Your task to perform on an android device: Open Android settings Image 0: 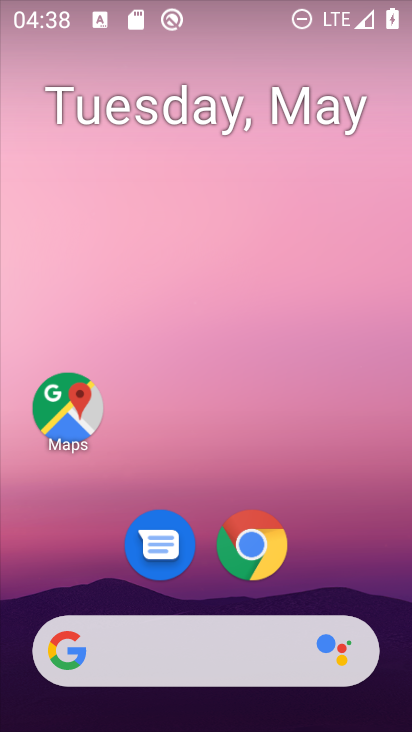
Step 0: drag from (391, 619) to (306, 101)
Your task to perform on an android device: Open Android settings Image 1: 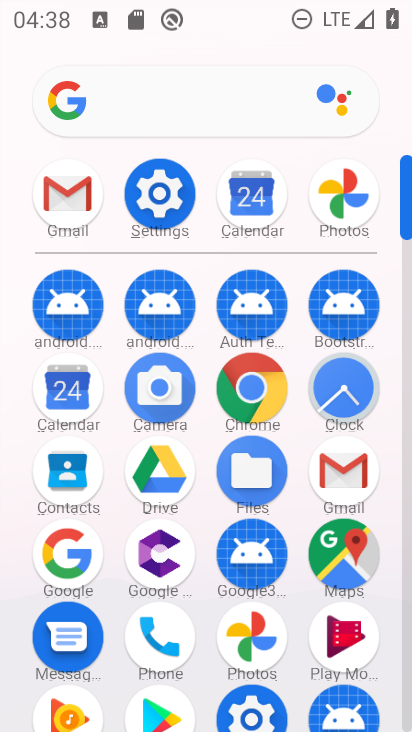
Step 1: click (404, 704)
Your task to perform on an android device: Open Android settings Image 2: 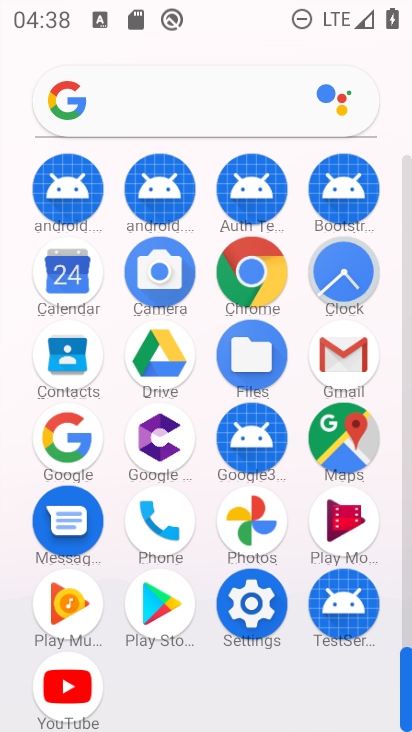
Step 2: click (250, 601)
Your task to perform on an android device: Open Android settings Image 3: 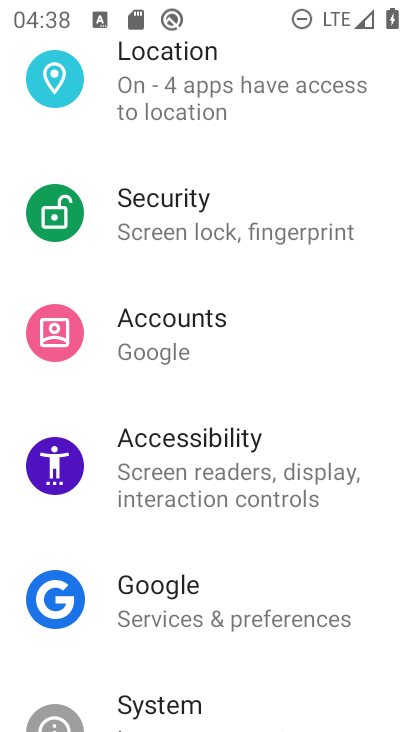
Step 3: drag from (340, 691) to (358, 219)
Your task to perform on an android device: Open Android settings Image 4: 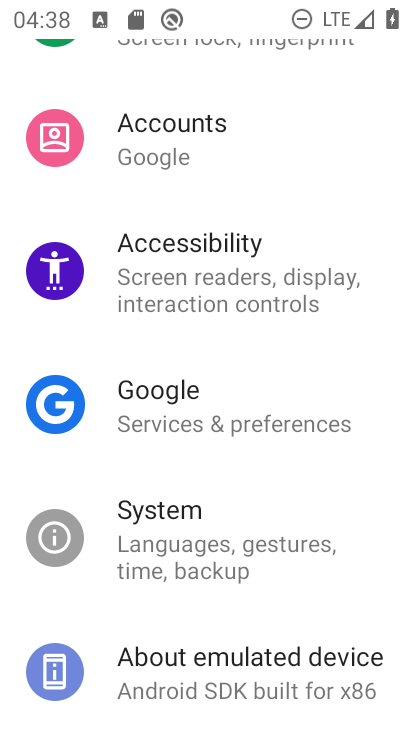
Step 4: click (156, 669)
Your task to perform on an android device: Open Android settings Image 5: 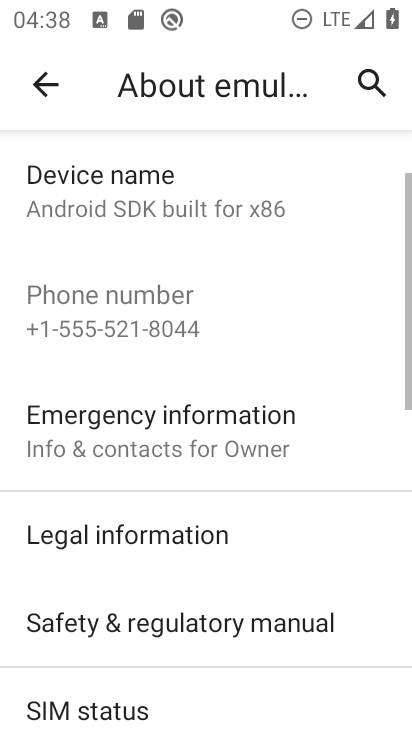
Step 5: task complete